Your task to perform on an android device: set the stopwatch Image 0: 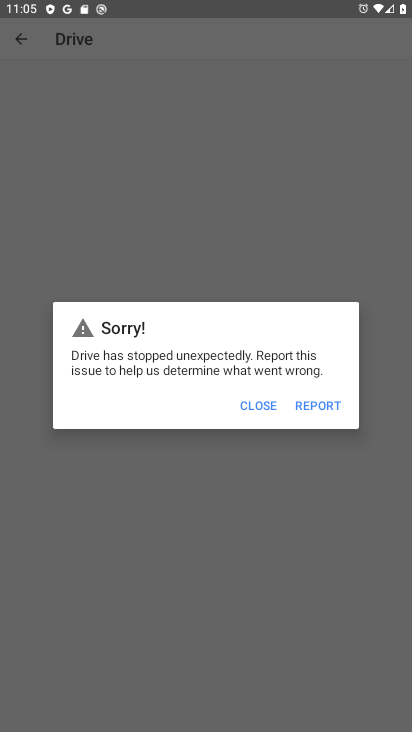
Step 0: press home button
Your task to perform on an android device: set the stopwatch Image 1: 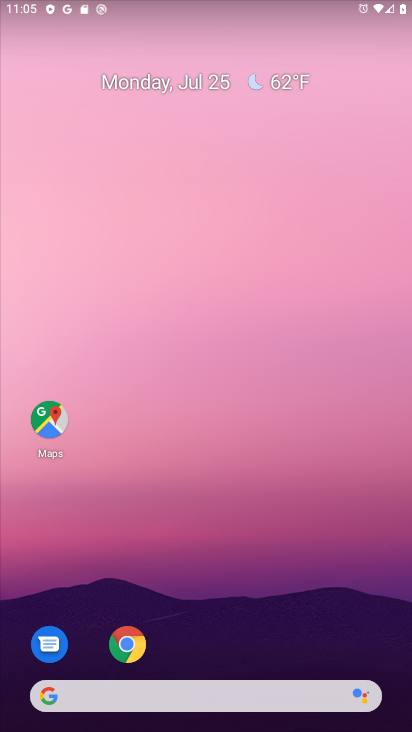
Step 1: drag from (260, 644) to (248, 187)
Your task to perform on an android device: set the stopwatch Image 2: 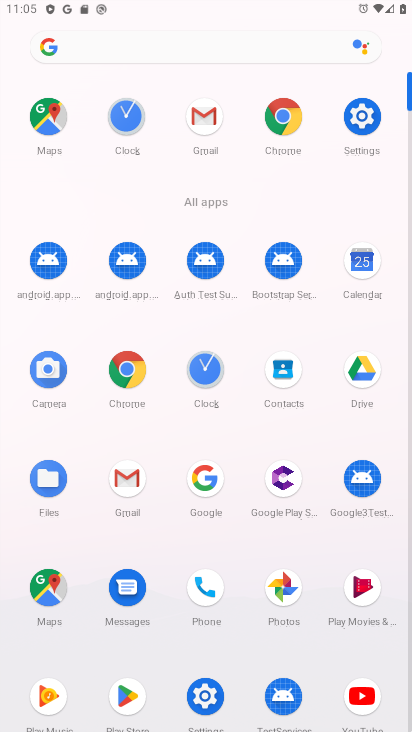
Step 2: click (194, 374)
Your task to perform on an android device: set the stopwatch Image 3: 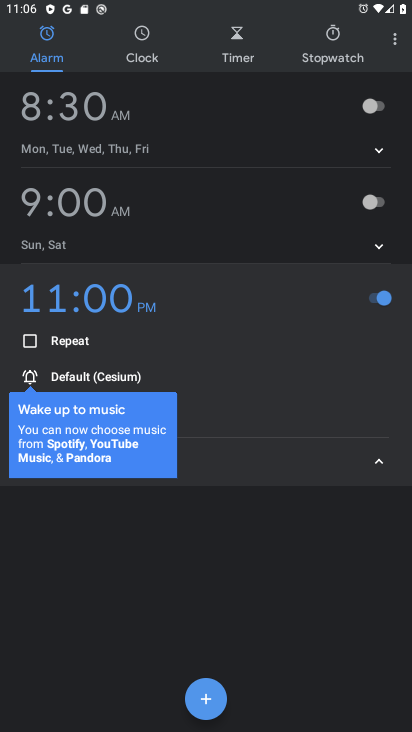
Step 3: click (340, 50)
Your task to perform on an android device: set the stopwatch Image 4: 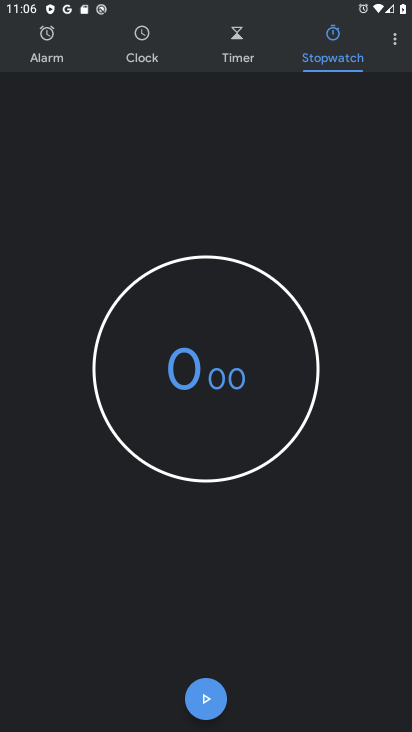
Step 4: click (203, 691)
Your task to perform on an android device: set the stopwatch Image 5: 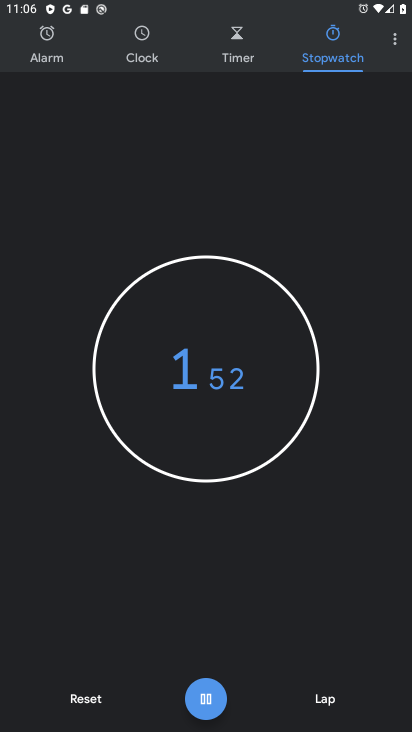
Step 5: task complete